Your task to perform on an android device: Show me popular videos on Youtube Image 0: 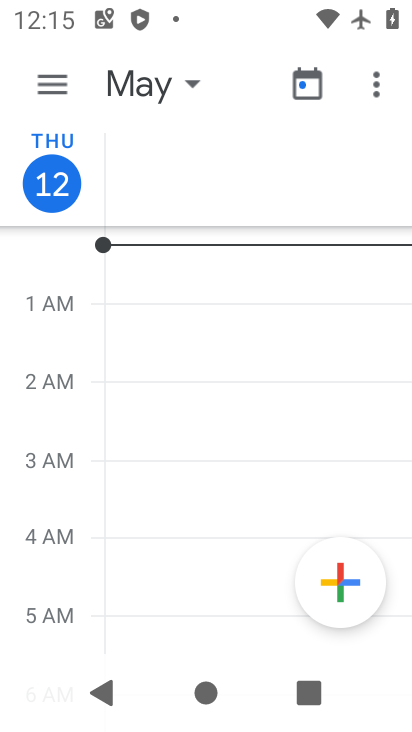
Step 0: press home button
Your task to perform on an android device: Show me popular videos on Youtube Image 1: 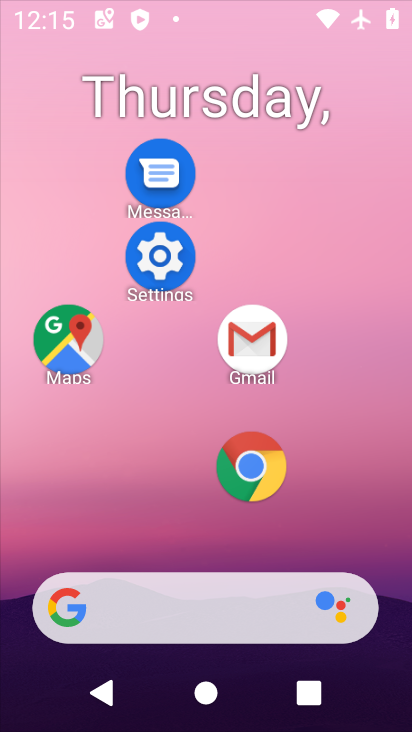
Step 1: drag from (248, 608) to (268, 194)
Your task to perform on an android device: Show me popular videos on Youtube Image 2: 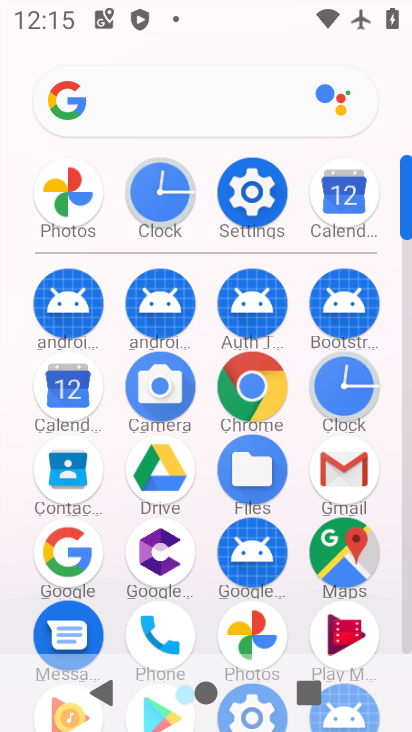
Step 2: drag from (203, 640) to (190, 251)
Your task to perform on an android device: Show me popular videos on Youtube Image 3: 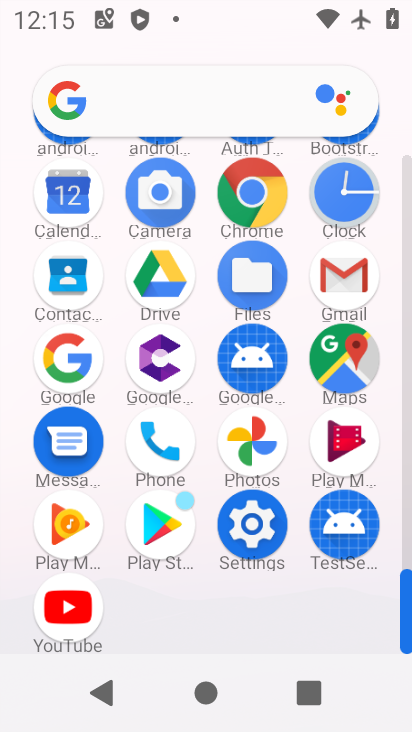
Step 3: click (83, 593)
Your task to perform on an android device: Show me popular videos on Youtube Image 4: 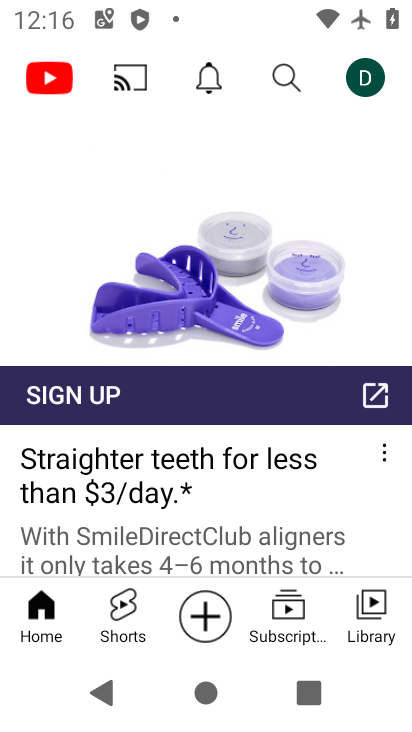
Step 4: drag from (161, 501) to (225, 180)
Your task to perform on an android device: Show me popular videos on Youtube Image 5: 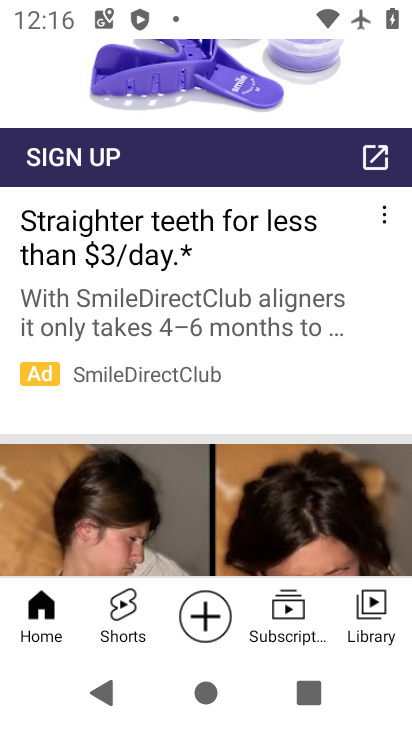
Step 5: drag from (188, 503) to (237, 228)
Your task to perform on an android device: Show me popular videos on Youtube Image 6: 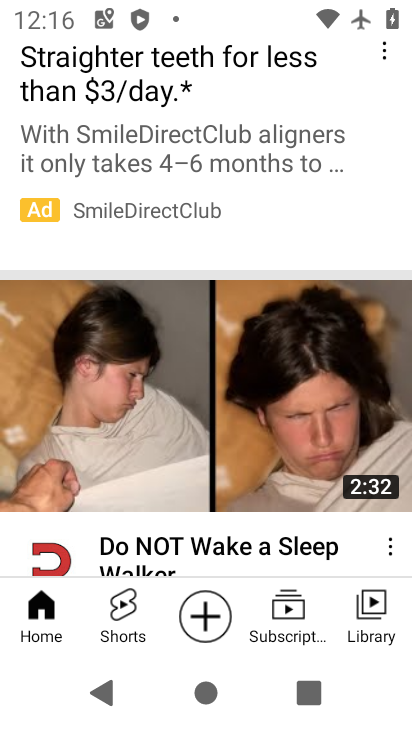
Step 6: drag from (259, 480) to (276, 232)
Your task to perform on an android device: Show me popular videos on Youtube Image 7: 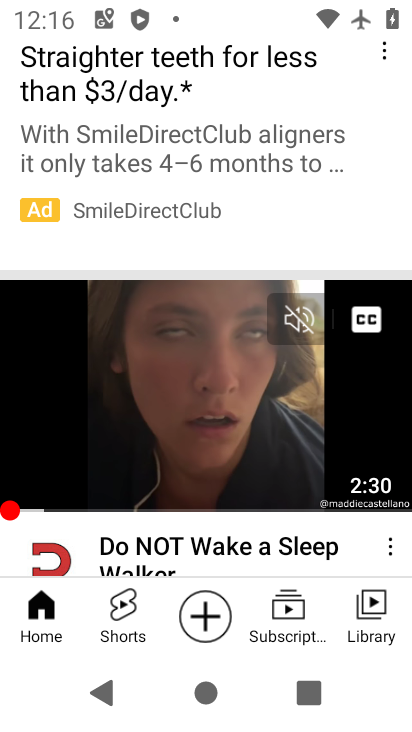
Step 7: drag from (100, 205) to (281, 710)
Your task to perform on an android device: Show me popular videos on Youtube Image 8: 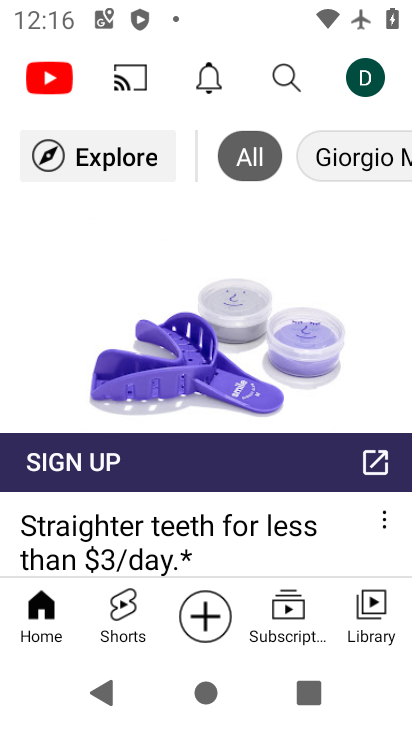
Step 8: click (126, 164)
Your task to perform on an android device: Show me popular videos on Youtube Image 9: 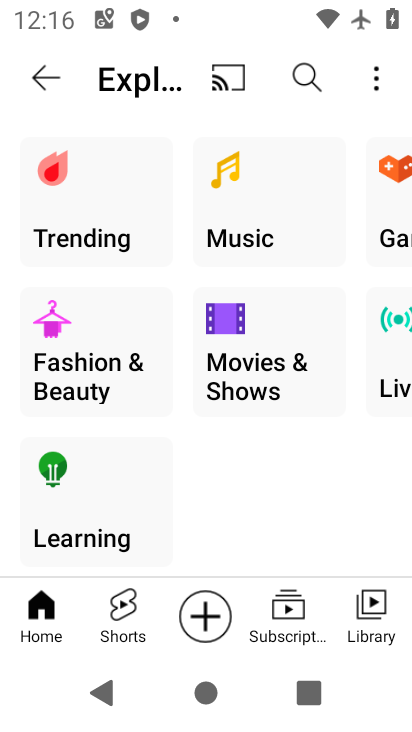
Step 9: click (120, 228)
Your task to perform on an android device: Show me popular videos on Youtube Image 10: 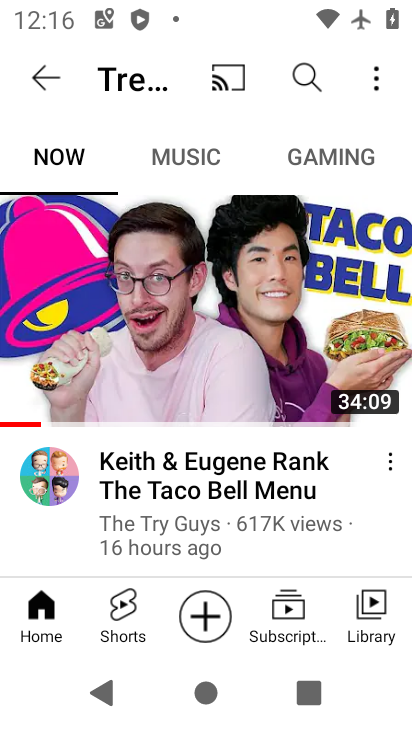
Step 10: task complete